Your task to perform on an android device: Go to ESPN.com Image 0: 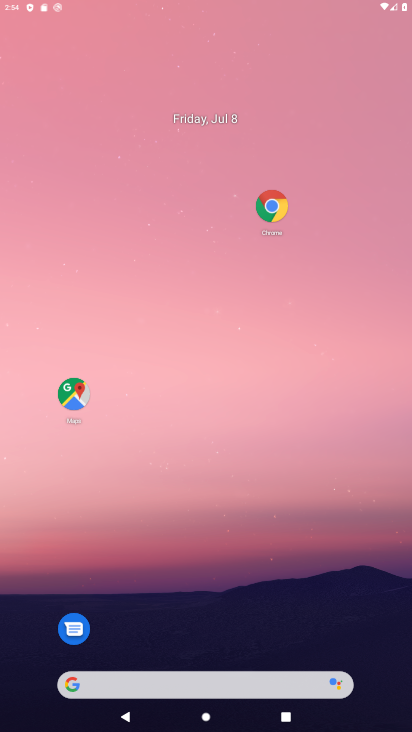
Step 0: drag from (235, 434) to (252, 191)
Your task to perform on an android device: Go to ESPN.com Image 1: 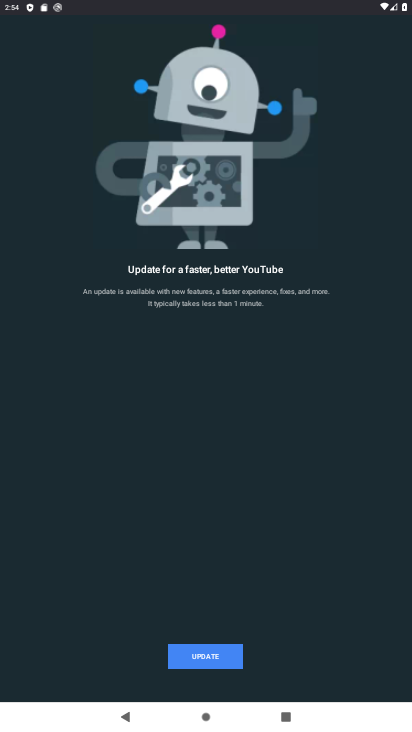
Step 1: press home button
Your task to perform on an android device: Go to ESPN.com Image 2: 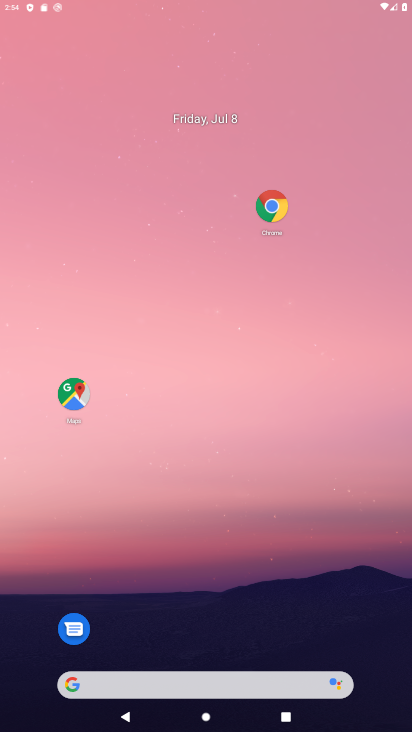
Step 2: drag from (181, 617) to (242, 104)
Your task to perform on an android device: Go to ESPN.com Image 3: 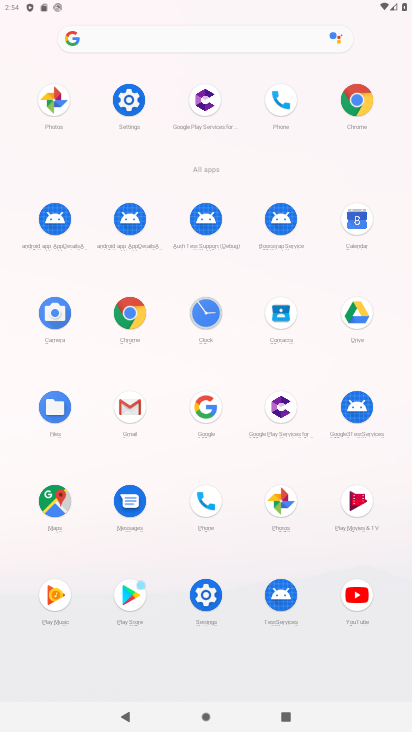
Step 3: click (160, 41)
Your task to perform on an android device: Go to ESPN.com Image 4: 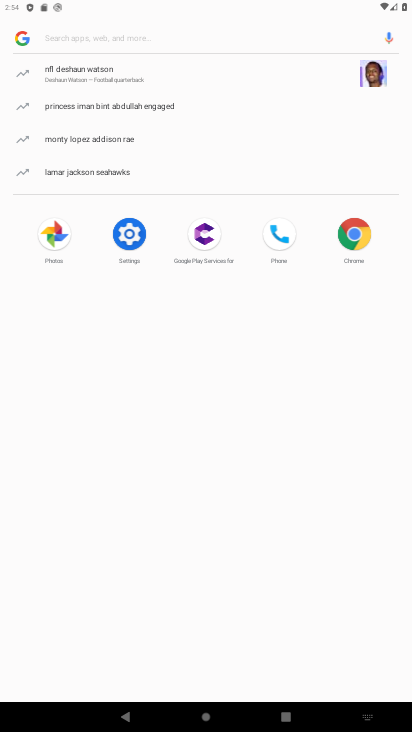
Step 4: click (140, 28)
Your task to perform on an android device: Go to ESPN.com Image 5: 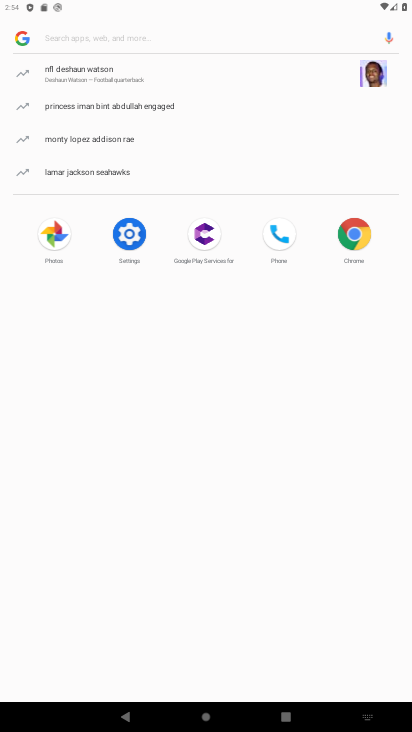
Step 5: type "ESPN.com"
Your task to perform on an android device: Go to ESPN.com Image 6: 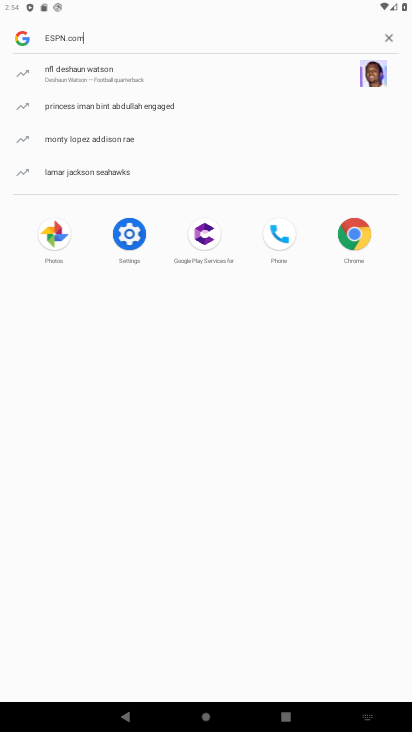
Step 6: type ""
Your task to perform on an android device: Go to ESPN.com Image 7: 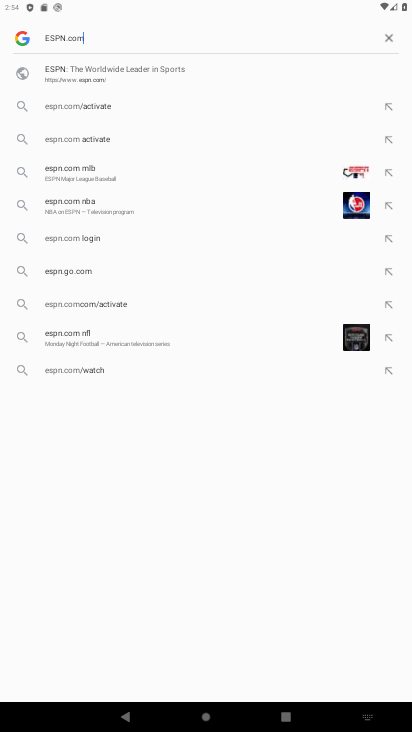
Step 7: click (76, 69)
Your task to perform on an android device: Go to ESPN.com Image 8: 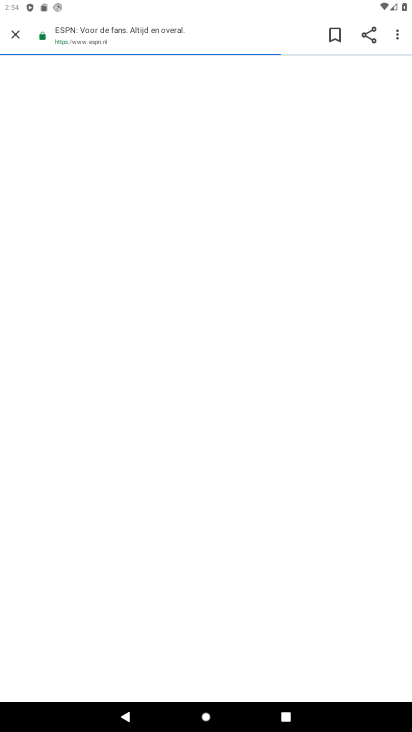
Step 8: click (237, 235)
Your task to perform on an android device: Go to ESPN.com Image 9: 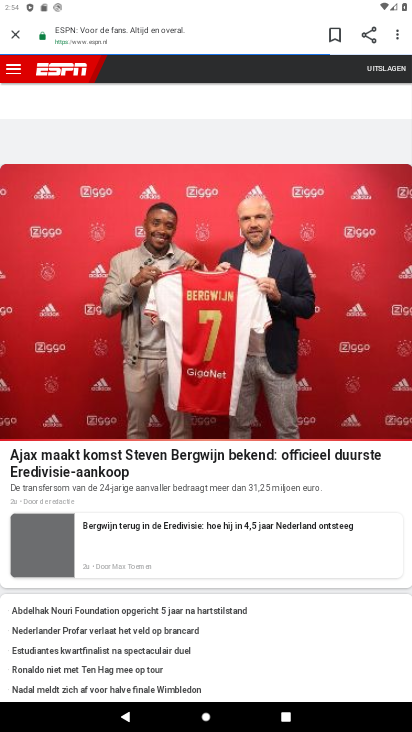
Step 9: task complete